Your task to perform on an android device: Go to Amazon Image 0: 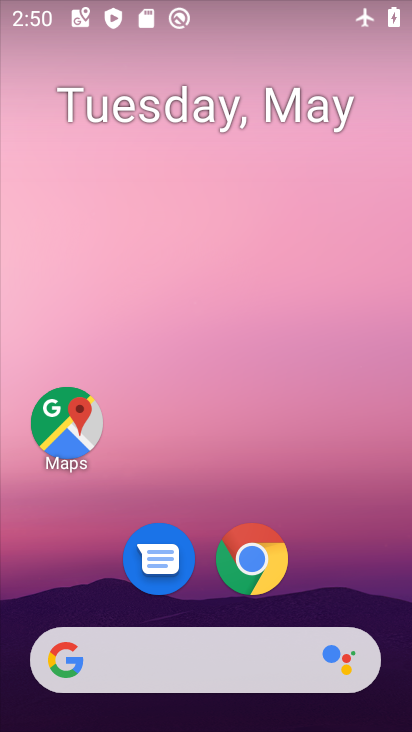
Step 0: click (258, 576)
Your task to perform on an android device: Go to Amazon Image 1: 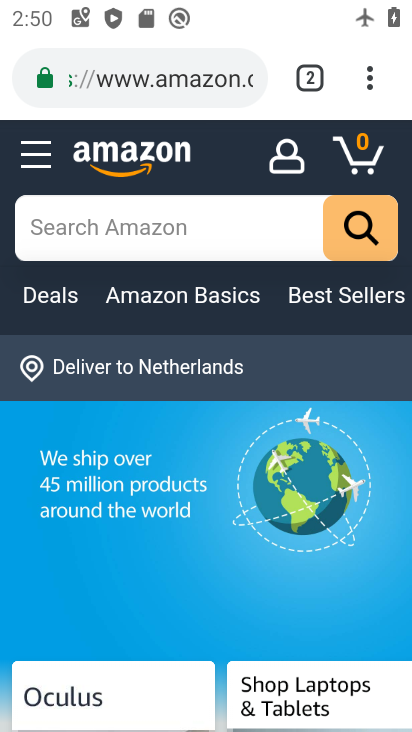
Step 1: task complete